Your task to perform on an android device: Open Google Image 0: 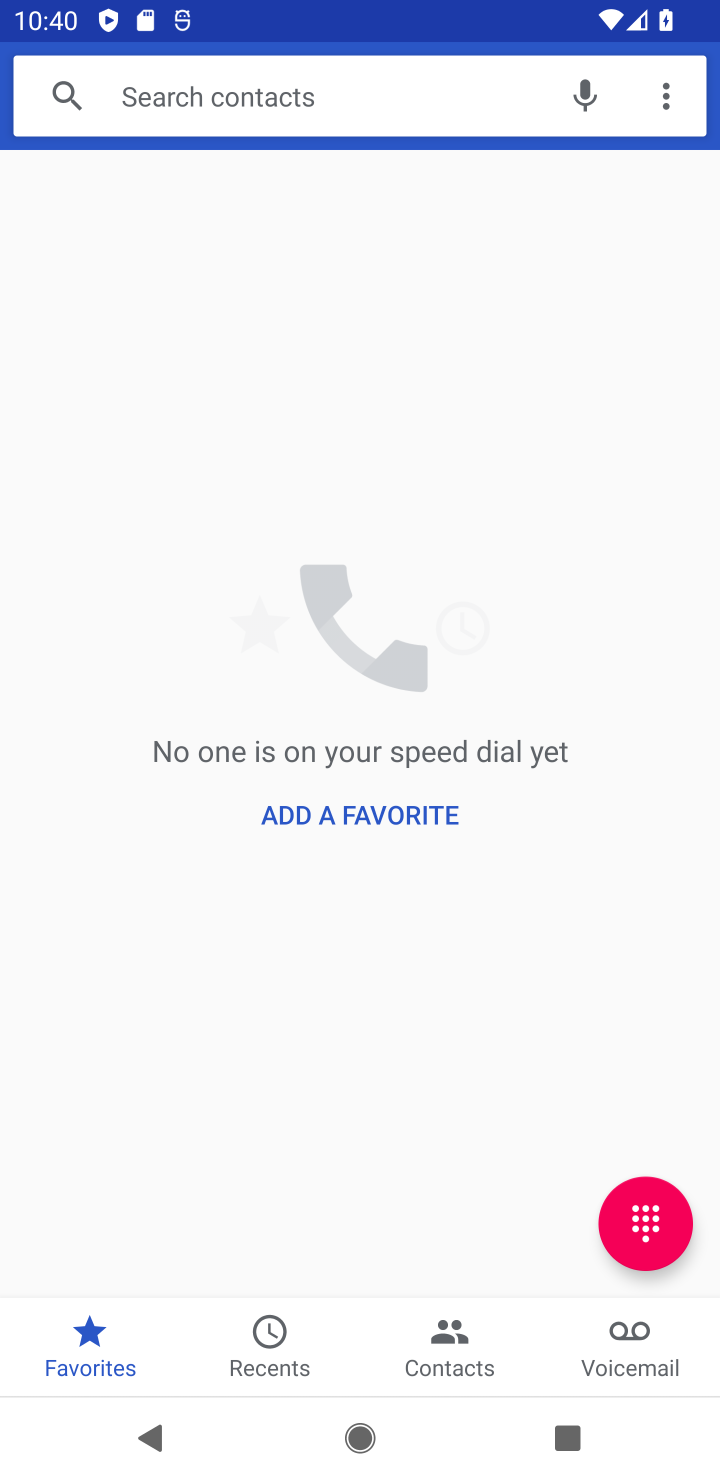
Step 0: press home button
Your task to perform on an android device: Open Google Image 1: 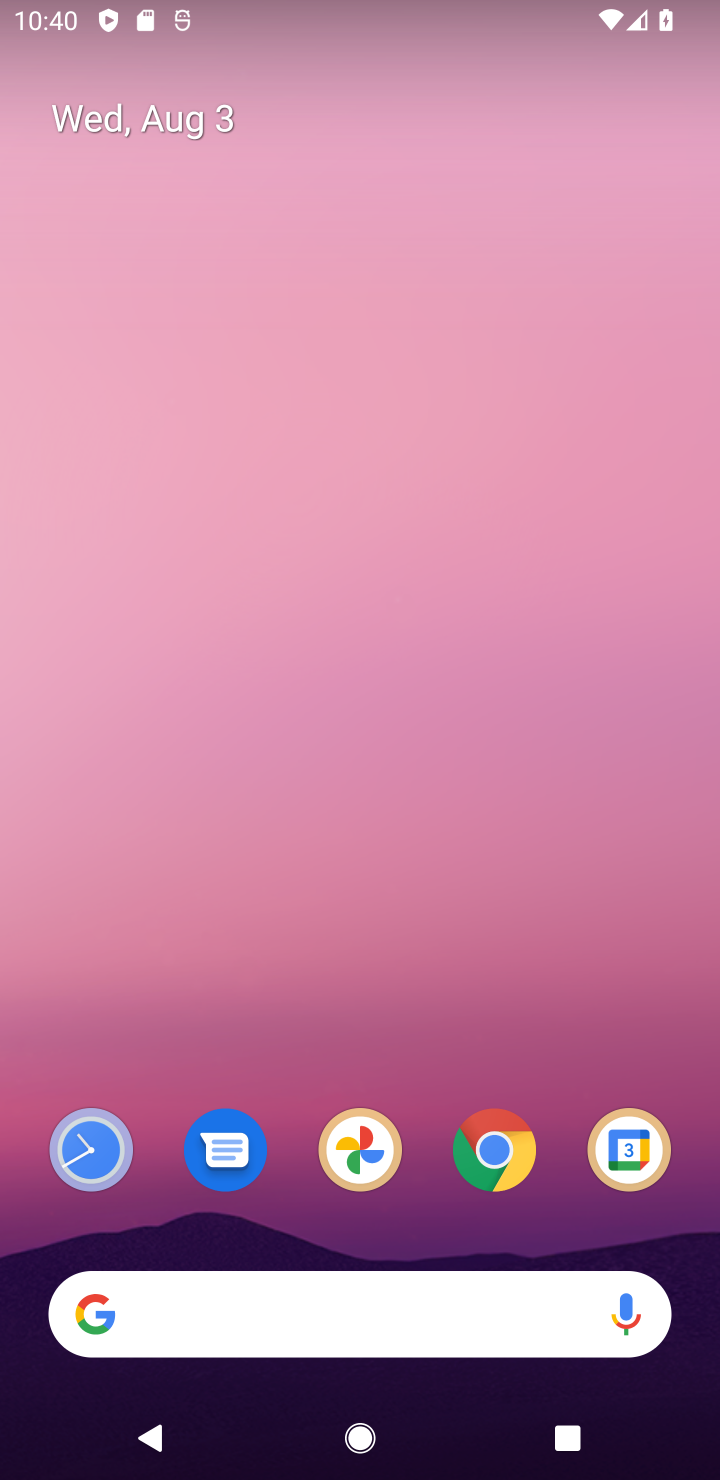
Step 1: drag from (536, 1048) to (538, 168)
Your task to perform on an android device: Open Google Image 2: 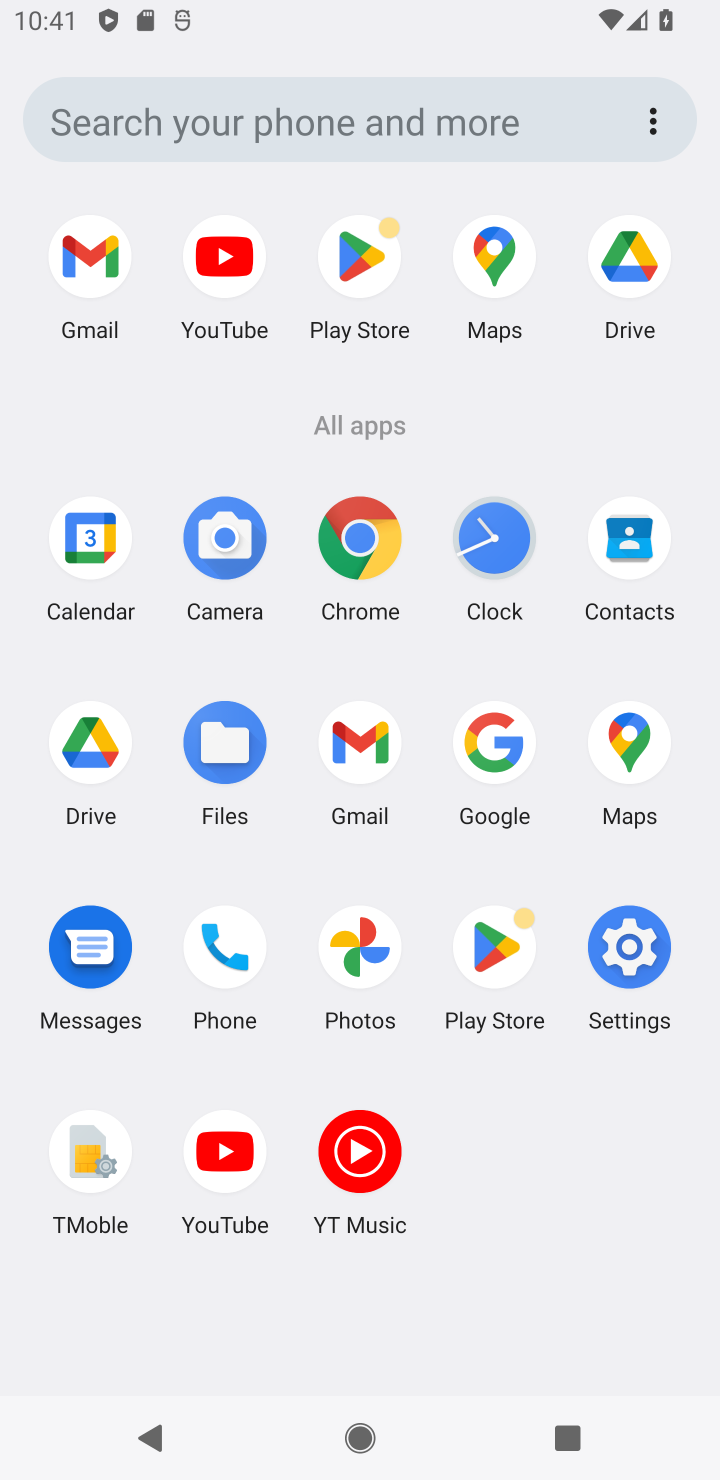
Step 2: click (494, 765)
Your task to perform on an android device: Open Google Image 3: 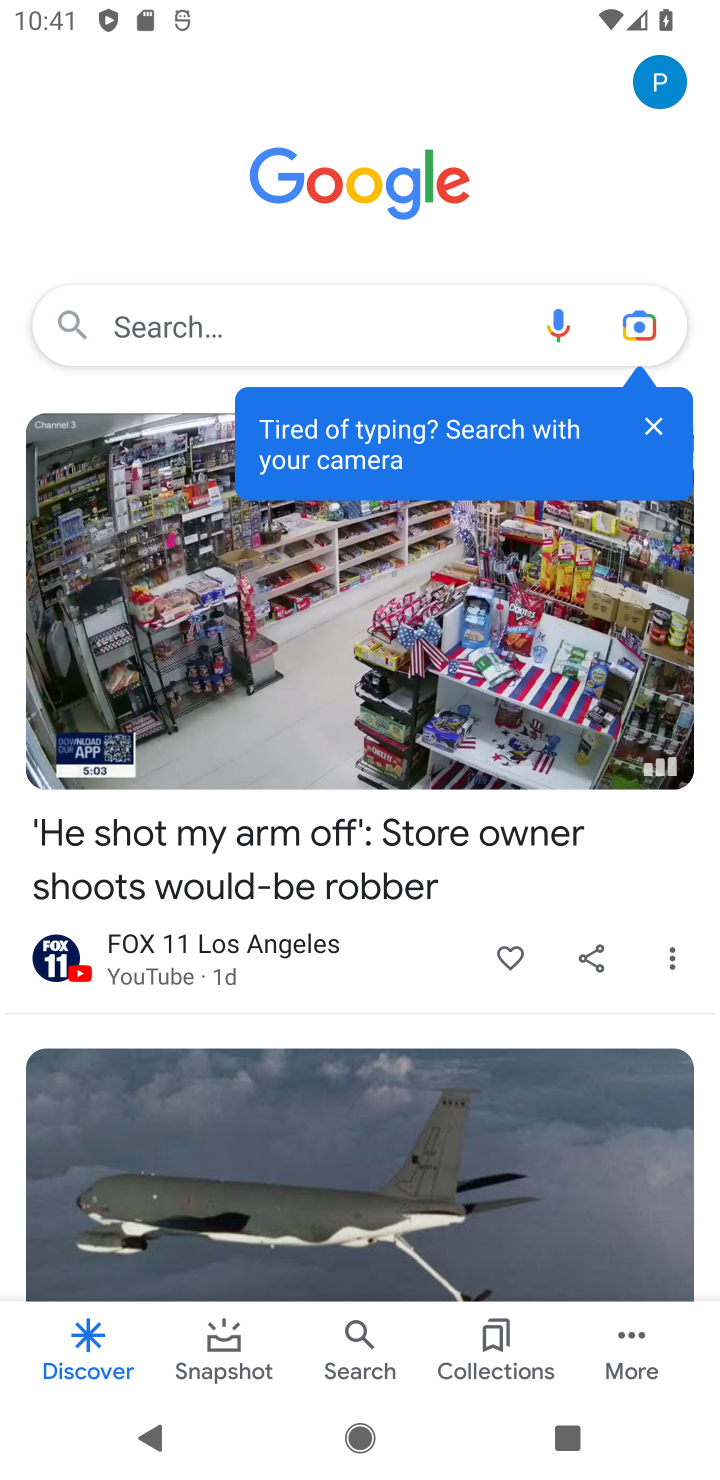
Step 3: task complete